Your task to perform on an android device: Do I have any events tomorrow? Image 0: 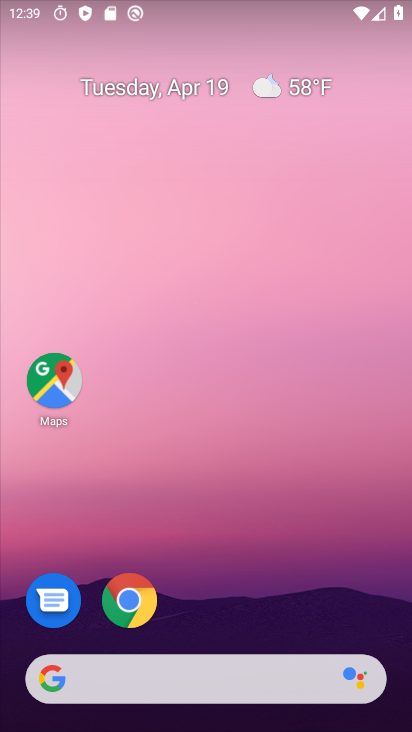
Step 0: drag from (224, 715) to (242, 187)
Your task to perform on an android device: Do I have any events tomorrow? Image 1: 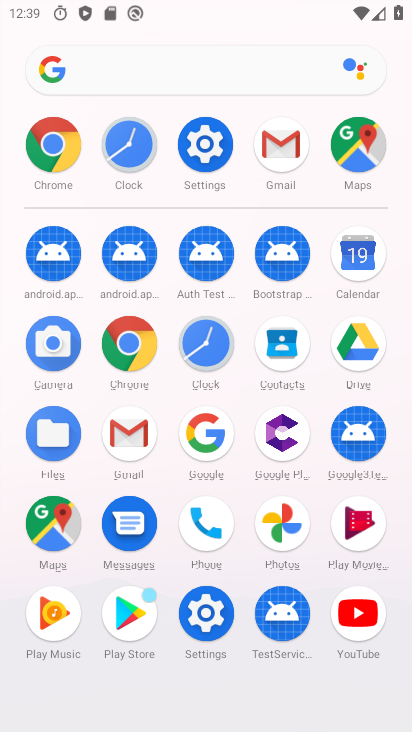
Step 1: click (369, 242)
Your task to perform on an android device: Do I have any events tomorrow? Image 2: 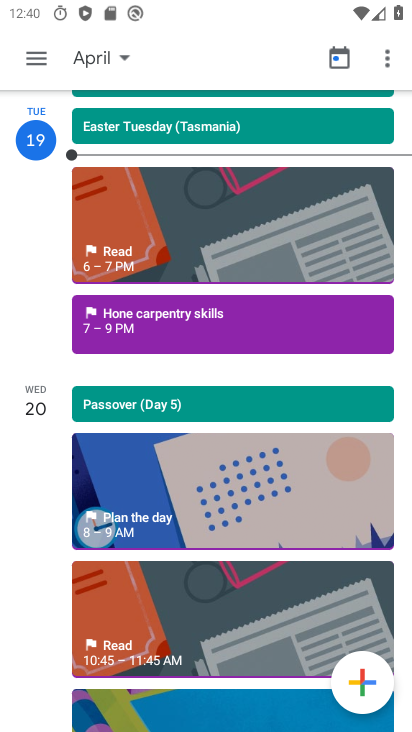
Step 2: task complete